Your task to perform on an android device: Set the phone to "Do not disturb". Image 0: 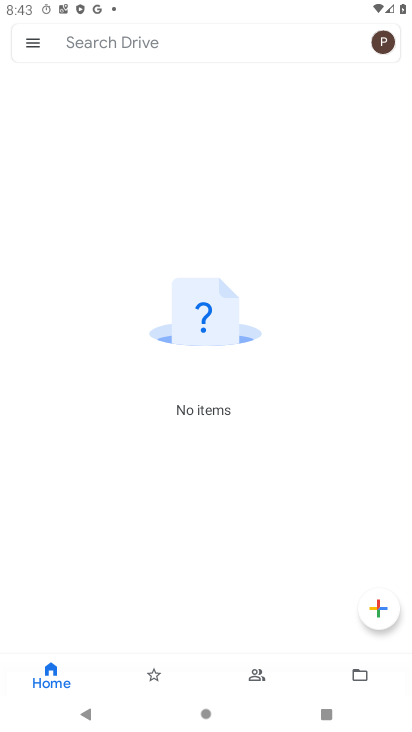
Step 0: press back button
Your task to perform on an android device: Set the phone to "Do not disturb". Image 1: 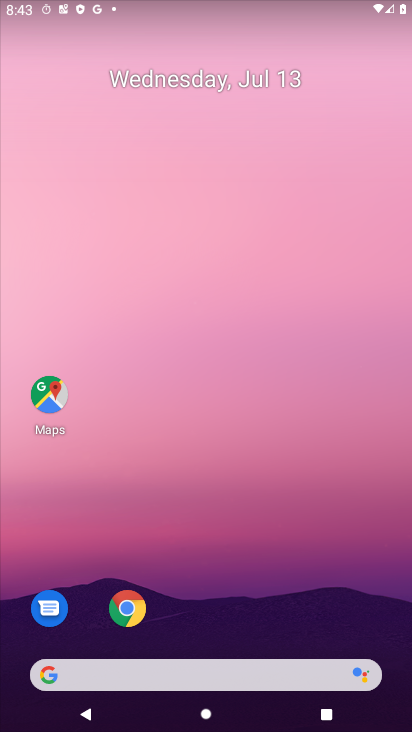
Step 1: click (236, 277)
Your task to perform on an android device: Set the phone to "Do not disturb". Image 2: 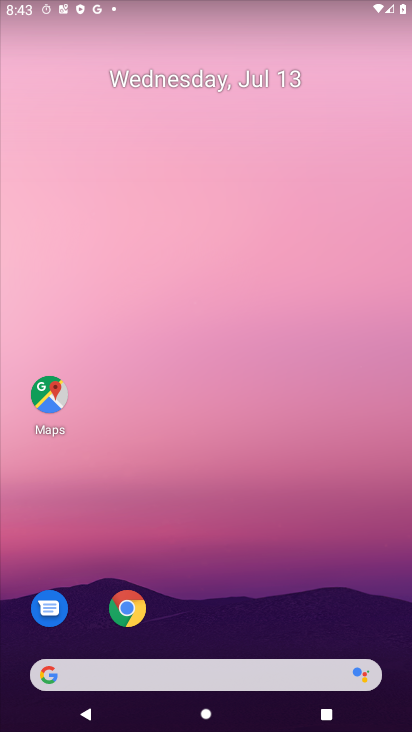
Step 2: drag from (301, 541) to (311, 175)
Your task to perform on an android device: Set the phone to "Do not disturb". Image 3: 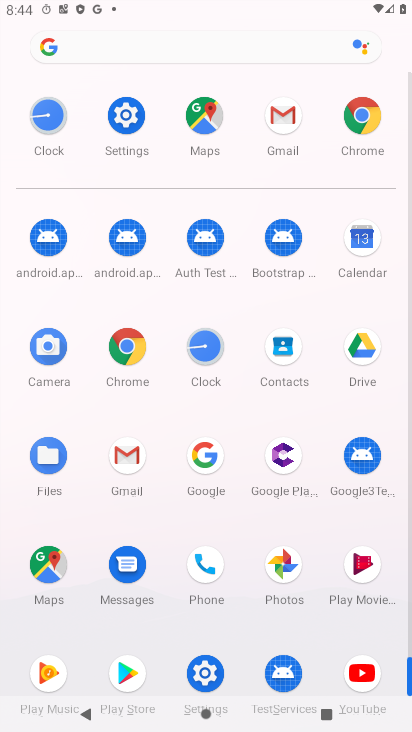
Step 3: click (116, 124)
Your task to perform on an android device: Set the phone to "Do not disturb". Image 4: 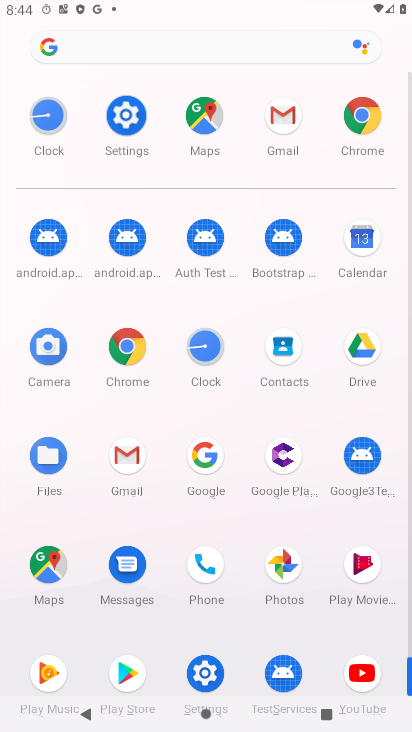
Step 4: click (118, 123)
Your task to perform on an android device: Set the phone to "Do not disturb". Image 5: 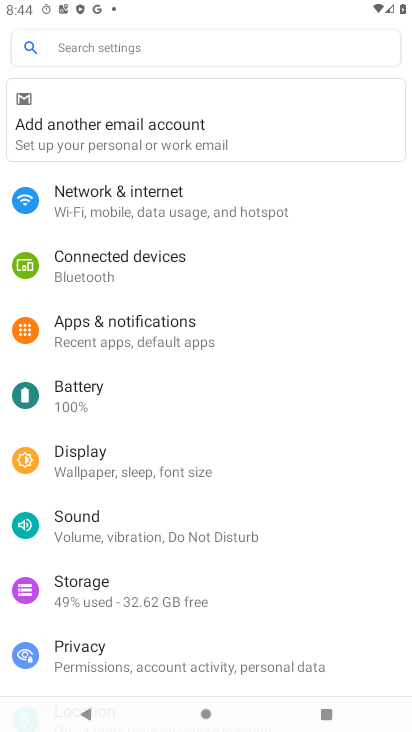
Step 5: click (77, 524)
Your task to perform on an android device: Set the phone to "Do not disturb". Image 6: 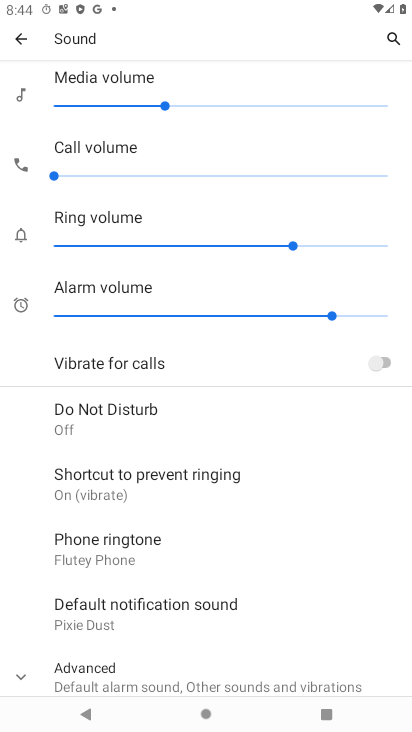
Step 6: click (195, 123)
Your task to perform on an android device: Set the phone to "Do not disturb". Image 7: 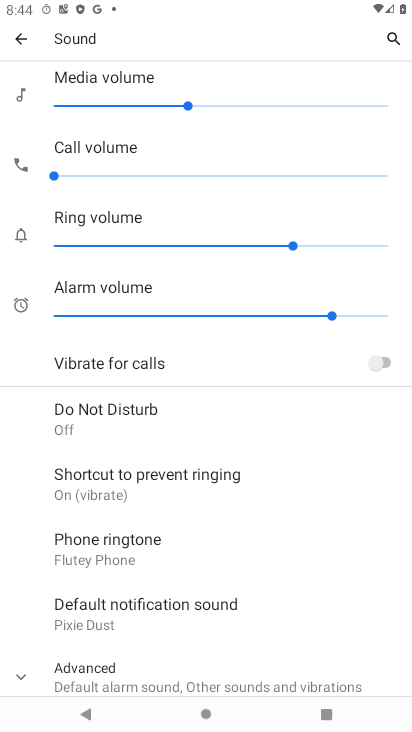
Step 7: drag from (198, 468) to (178, 216)
Your task to perform on an android device: Set the phone to "Do not disturb". Image 8: 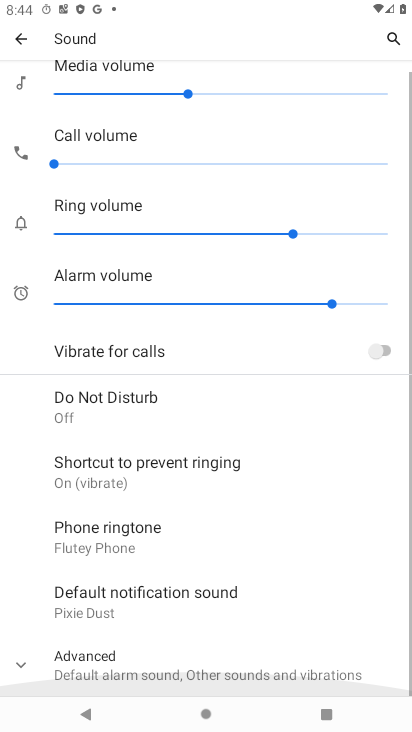
Step 8: drag from (195, 490) to (162, 369)
Your task to perform on an android device: Set the phone to "Do not disturb". Image 9: 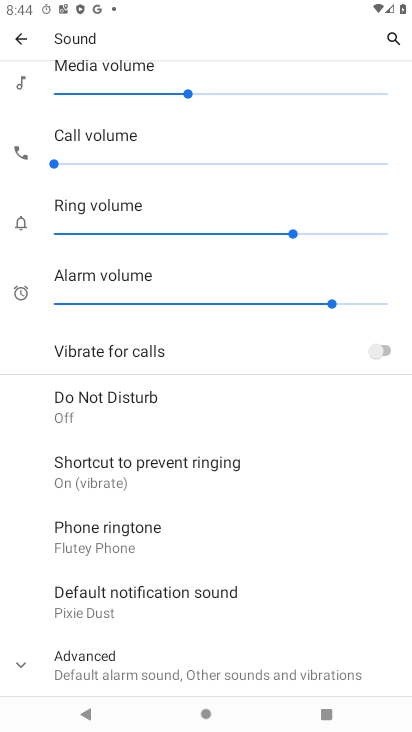
Step 9: drag from (171, 511) to (162, 103)
Your task to perform on an android device: Set the phone to "Do not disturb". Image 10: 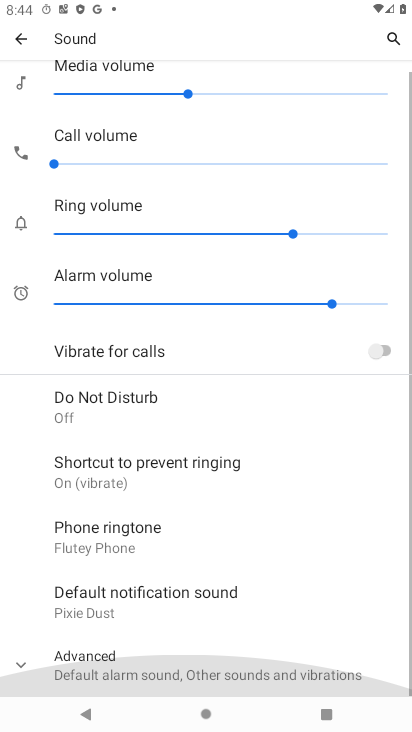
Step 10: drag from (259, 480) to (247, 66)
Your task to perform on an android device: Set the phone to "Do not disturb". Image 11: 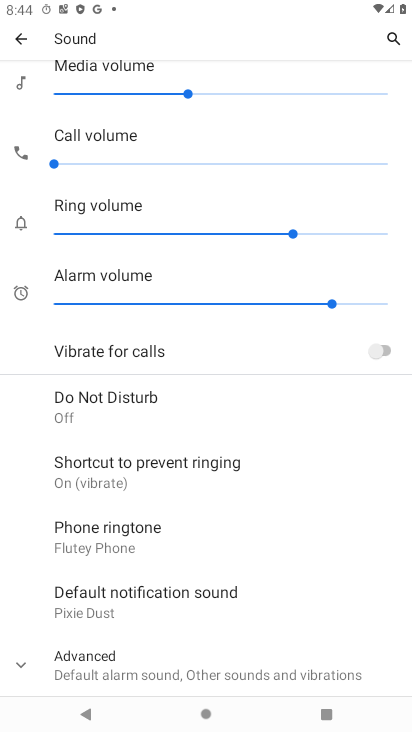
Step 11: click (102, 392)
Your task to perform on an android device: Set the phone to "Do not disturb". Image 12: 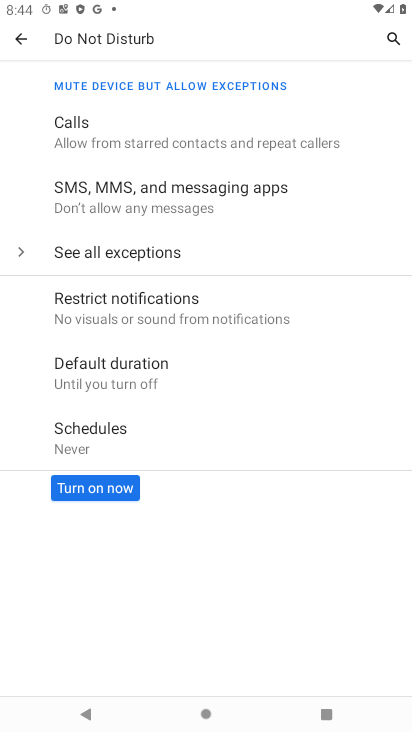
Step 12: click (97, 495)
Your task to perform on an android device: Set the phone to "Do not disturb". Image 13: 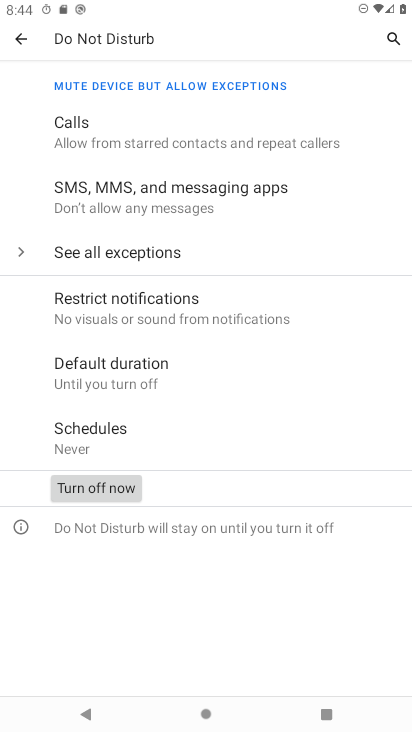
Step 13: task complete